Your task to perform on an android device: Open battery settings Image 0: 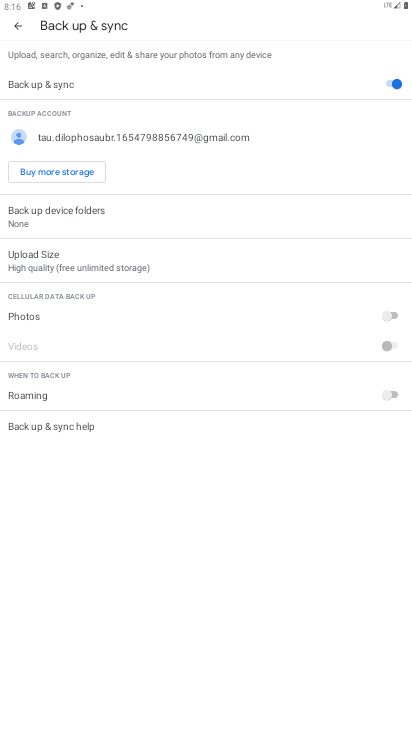
Step 0: press home button
Your task to perform on an android device: Open battery settings Image 1: 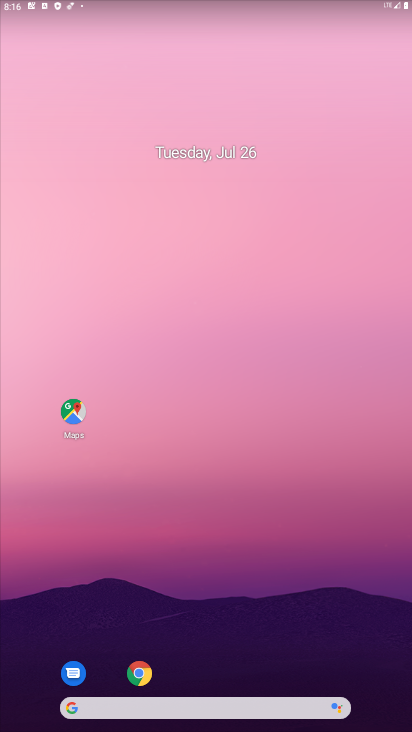
Step 1: drag from (201, 636) to (205, 236)
Your task to perform on an android device: Open battery settings Image 2: 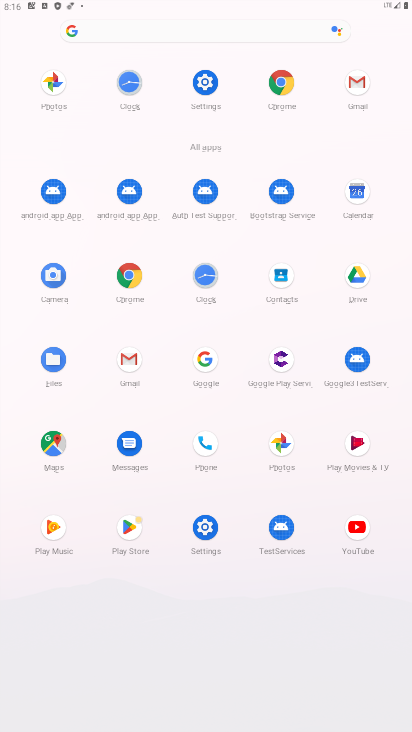
Step 2: click (210, 88)
Your task to perform on an android device: Open battery settings Image 3: 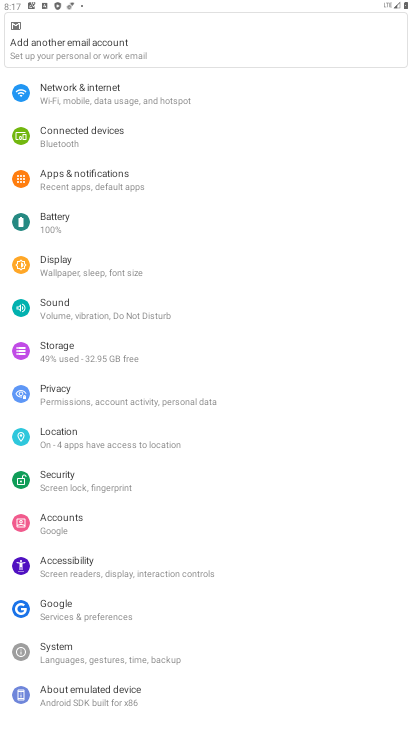
Step 3: click (101, 217)
Your task to perform on an android device: Open battery settings Image 4: 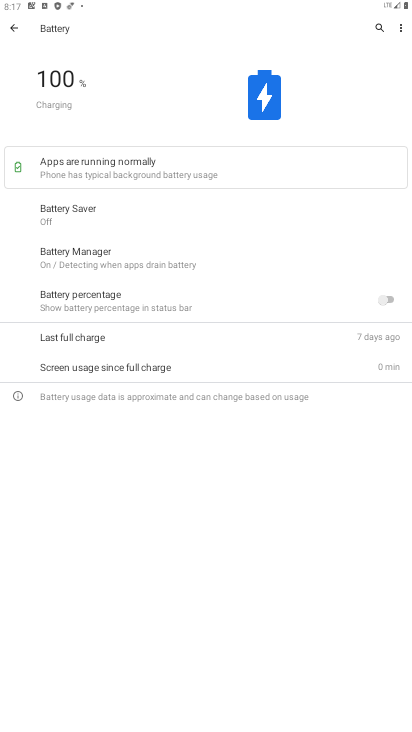
Step 4: task complete